Your task to perform on an android device: delete a single message in the gmail app Image 0: 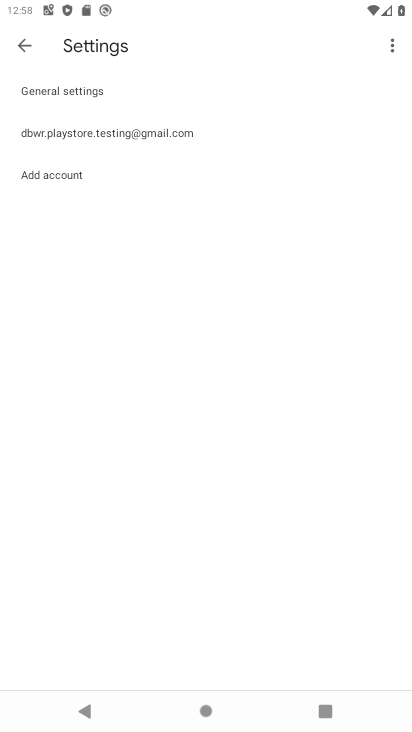
Step 0: press back button
Your task to perform on an android device: delete a single message in the gmail app Image 1: 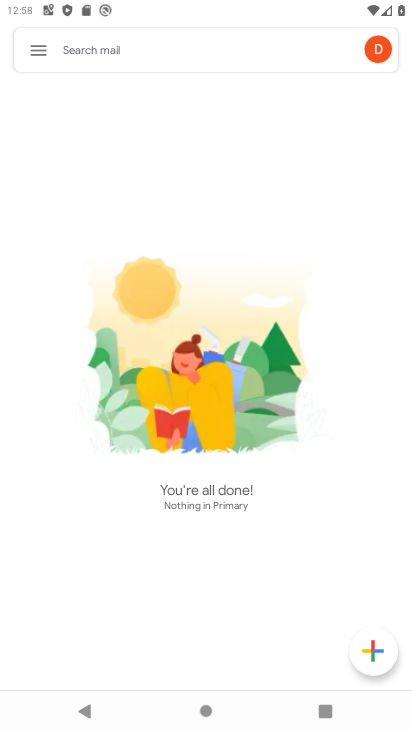
Step 1: press back button
Your task to perform on an android device: delete a single message in the gmail app Image 2: 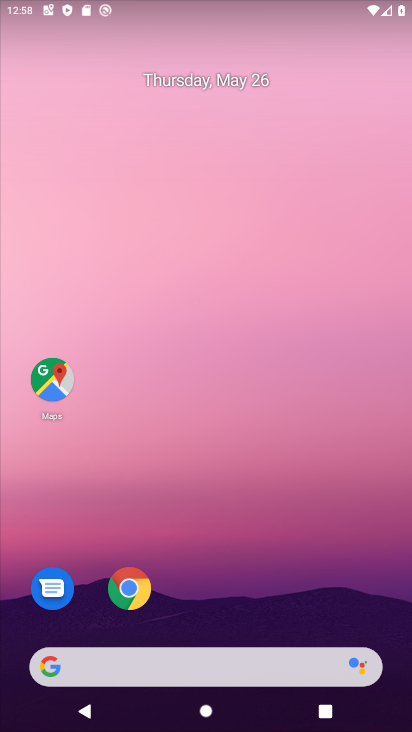
Step 2: drag from (395, 653) to (389, 245)
Your task to perform on an android device: delete a single message in the gmail app Image 3: 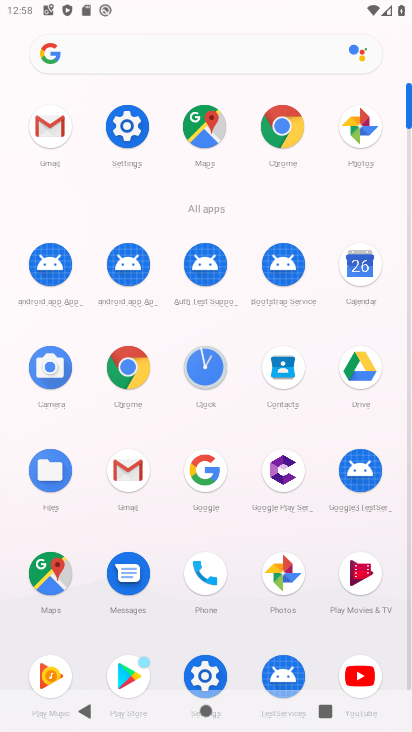
Step 3: click (131, 481)
Your task to perform on an android device: delete a single message in the gmail app Image 4: 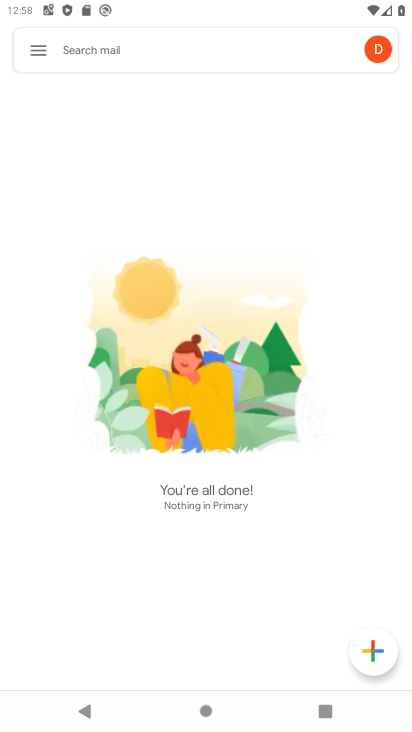
Step 4: click (40, 40)
Your task to perform on an android device: delete a single message in the gmail app Image 5: 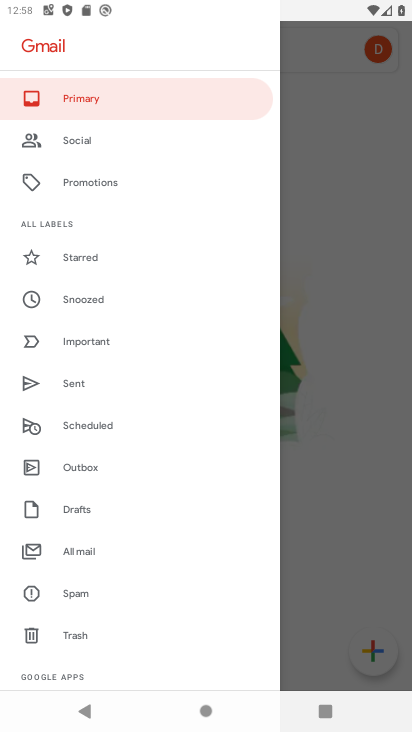
Step 5: click (71, 102)
Your task to perform on an android device: delete a single message in the gmail app Image 6: 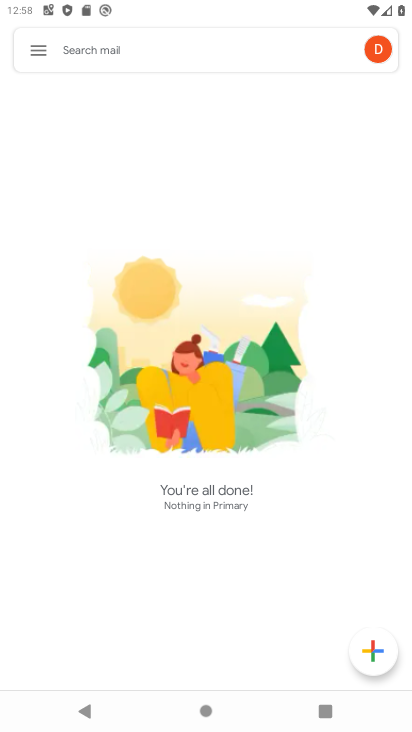
Step 6: task complete